Your task to perform on an android device: Open Google Chrome Image 0: 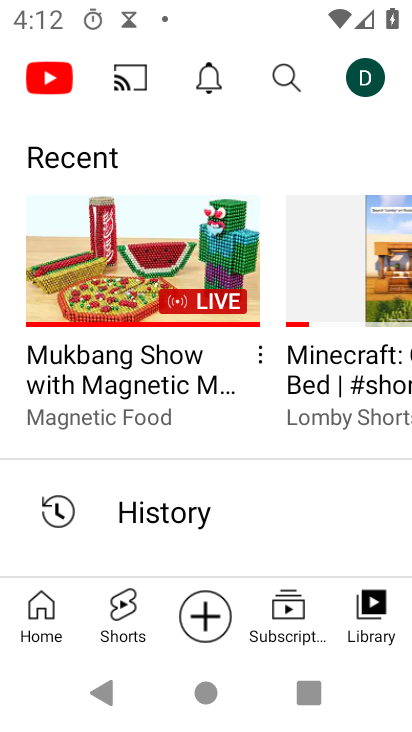
Step 0: press home button
Your task to perform on an android device: Open Google Chrome Image 1: 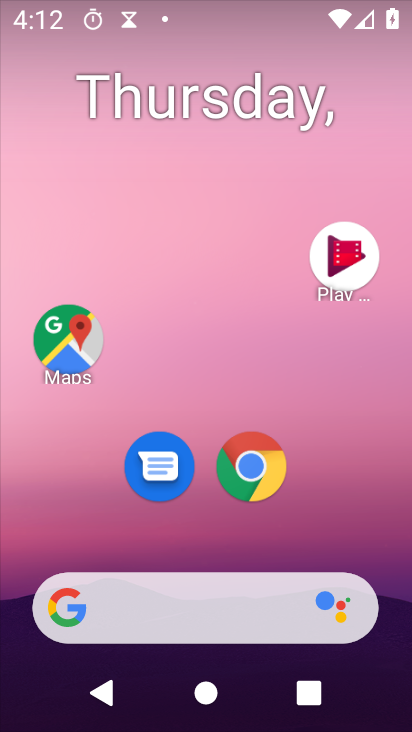
Step 1: drag from (294, 590) to (411, 609)
Your task to perform on an android device: Open Google Chrome Image 2: 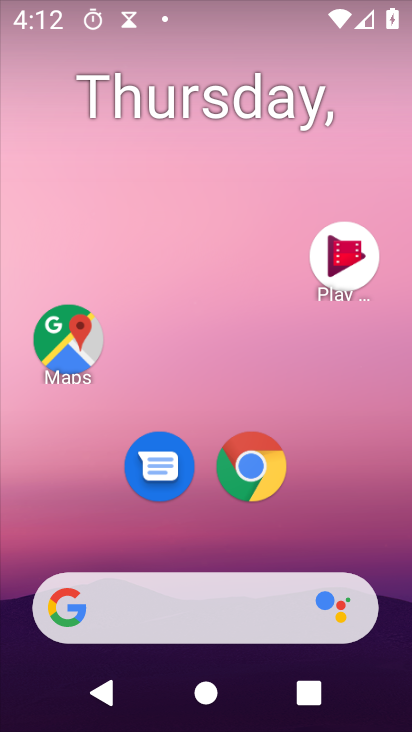
Step 2: click (245, 392)
Your task to perform on an android device: Open Google Chrome Image 3: 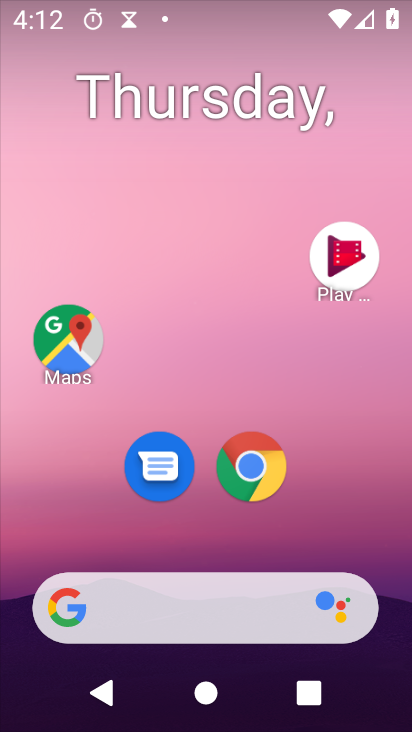
Step 3: click (262, 478)
Your task to perform on an android device: Open Google Chrome Image 4: 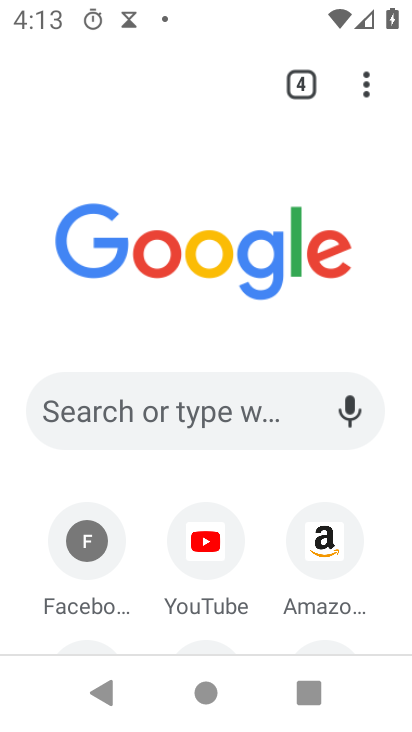
Step 4: task complete